Your task to perform on an android device: Open the web browser Image 0: 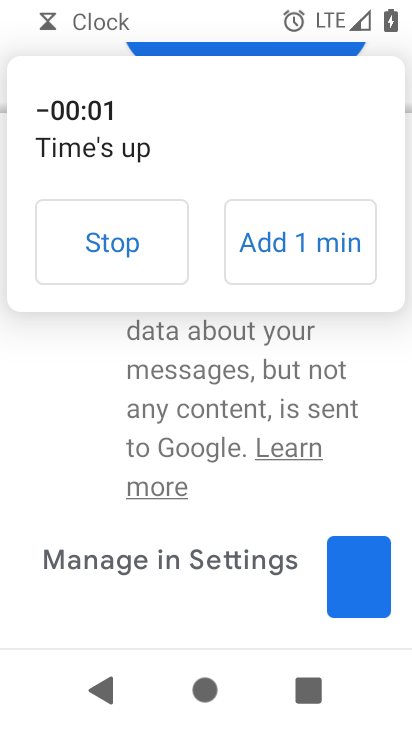
Step 0: press home button
Your task to perform on an android device: Open the web browser Image 1: 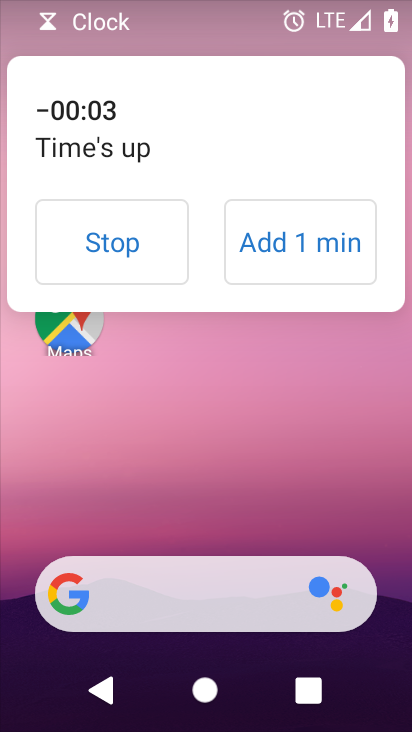
Step 1: click (101, 244)
Your task to perform on an android device: Open the web browser Image 2: 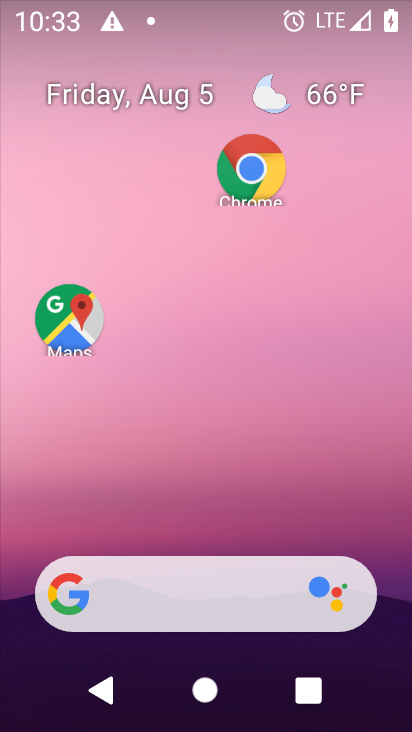
Step 2: click (235, 176)
Your task to perform on an android device: Open the web browser Image 3: 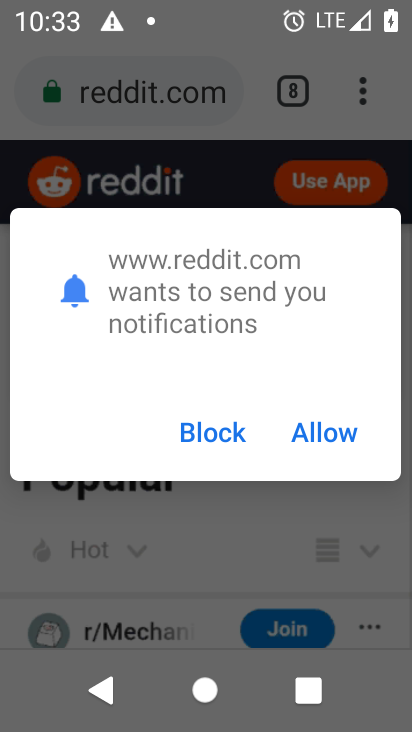
Step 3: task complete